Your task to perform on an android device: turn on wifi Image 0: 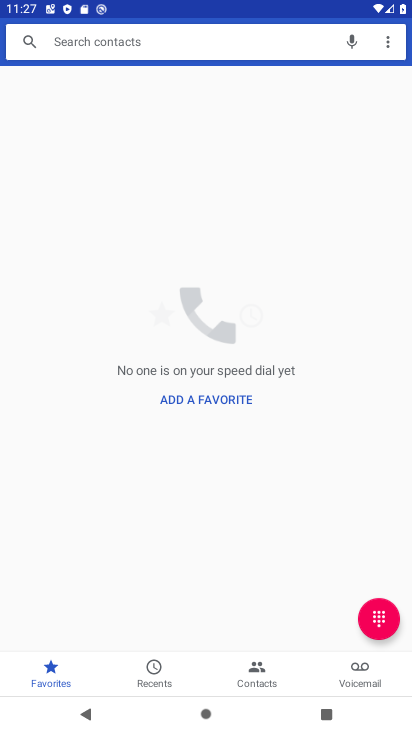
Step 0: press home button
Your task to perform on an android device: turn on wifi Image 1: 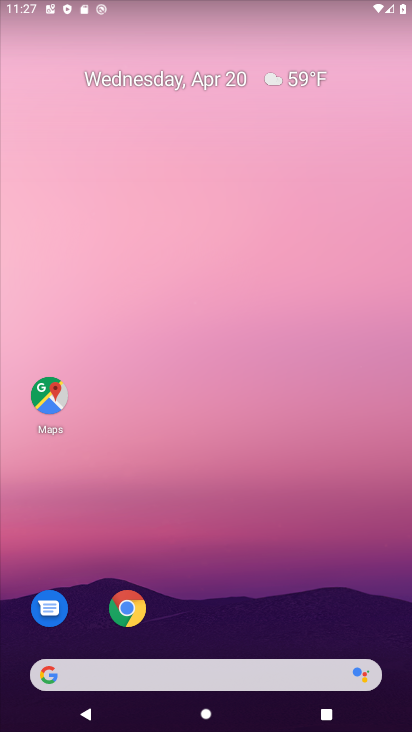
Step 1: drag from (229, 504) to (186, 120)
Your task to perform on an android device: turn on wifi Image 2: 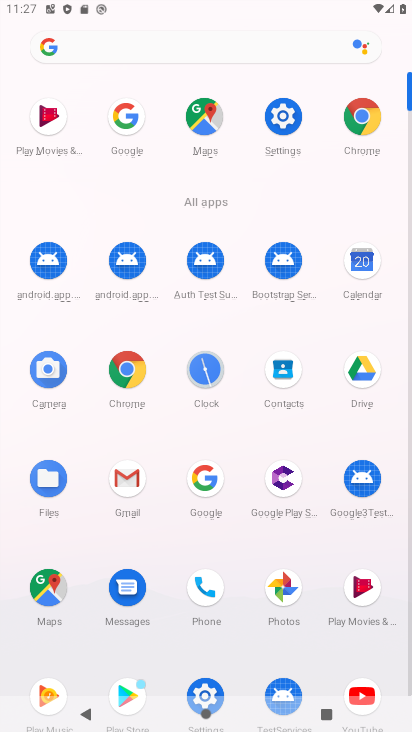
Step 2: click (281, 114)
Your task to perform on an android device: turn on wifi Image 3: 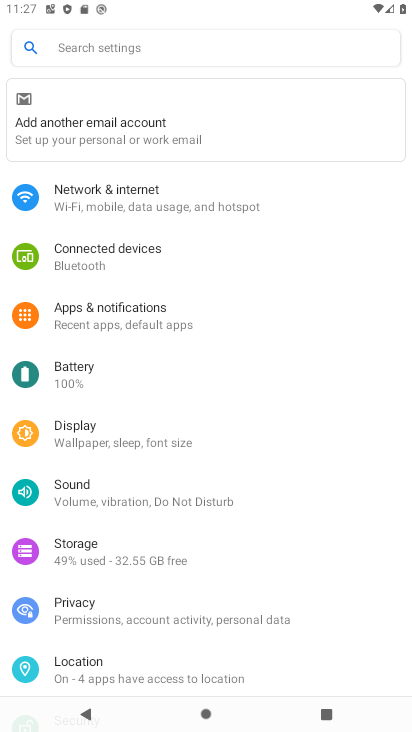
Step 3: click (159, 201)
Your task to perform on an android device: turn on wifi Image 4: 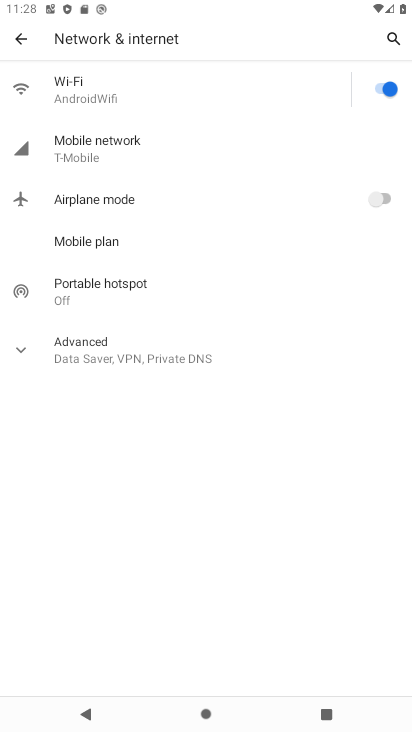
Step 4: task complete